Your task to perform on an android device: Search for the best rated vacuums on Target Image 0: 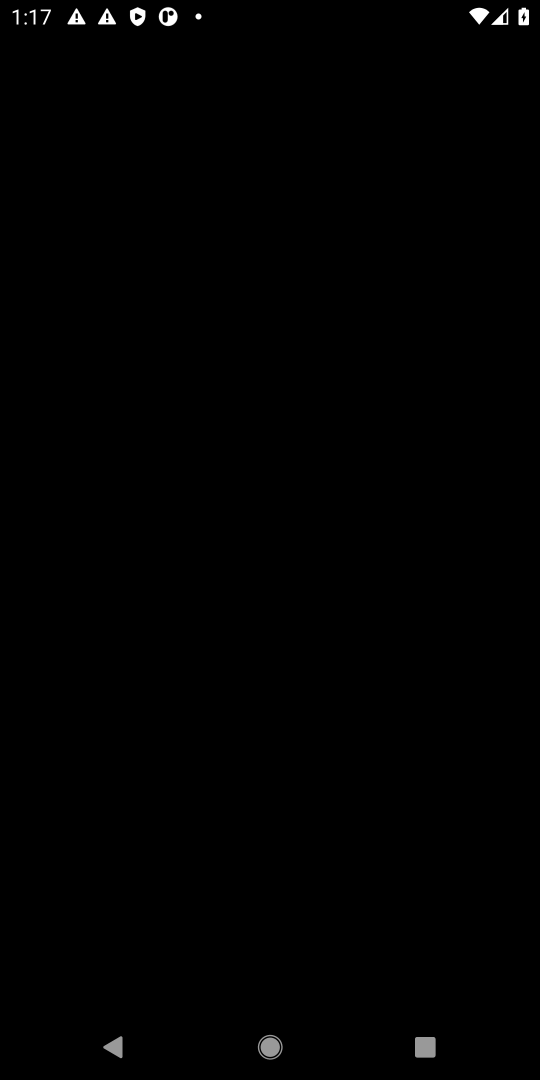
Step 0: click (281, 55)
Your task to perform on an android device: Search for the best rated vacuums on Target Image 1: 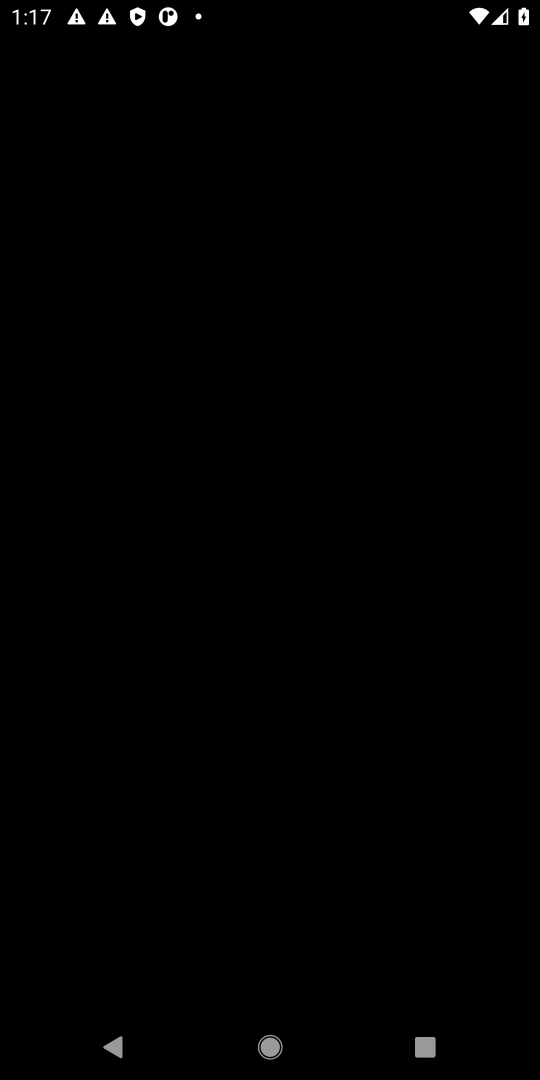
Step 1: press home button
Your task to perform on an android device: Search for the best rated vacuums on Target Image 2: 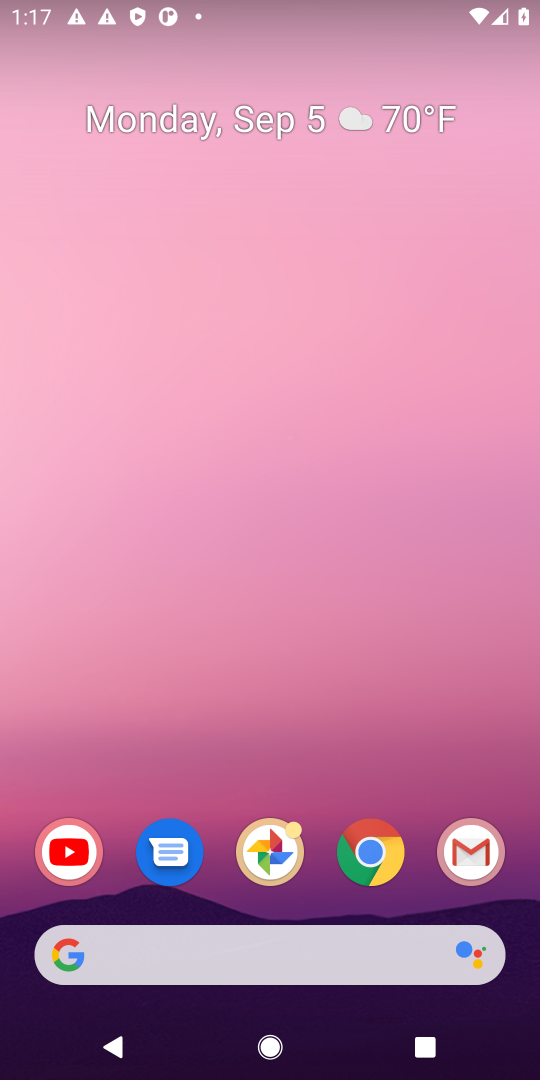
Step 2: click (374, 851)
Your task to perform on an android device: Search for the best rated vacuums on Target Image 3: 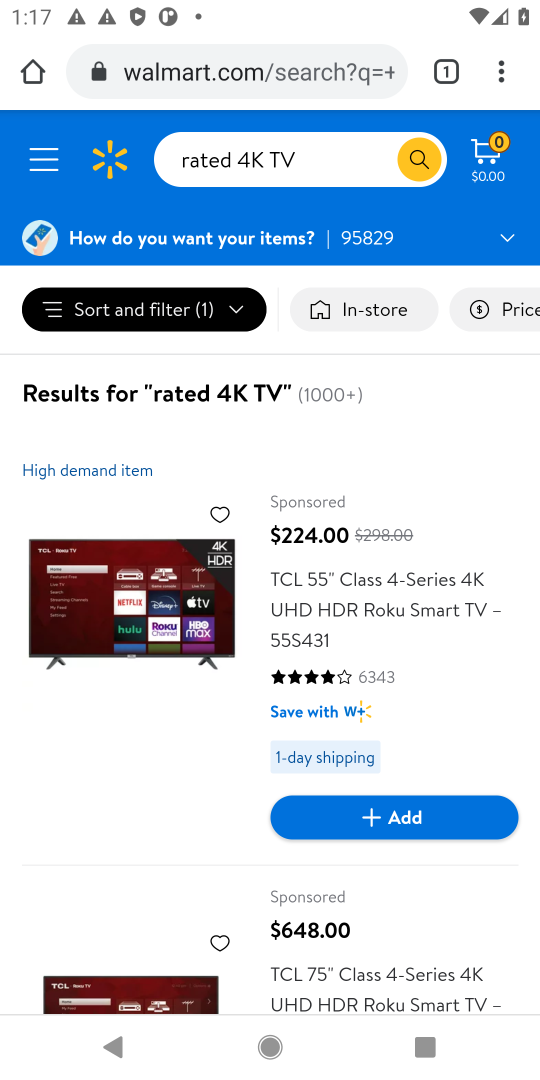
Step 3: click (285, 48)
Your task to perform on an android device: Search for the best rated vacuums on Target Image 4: 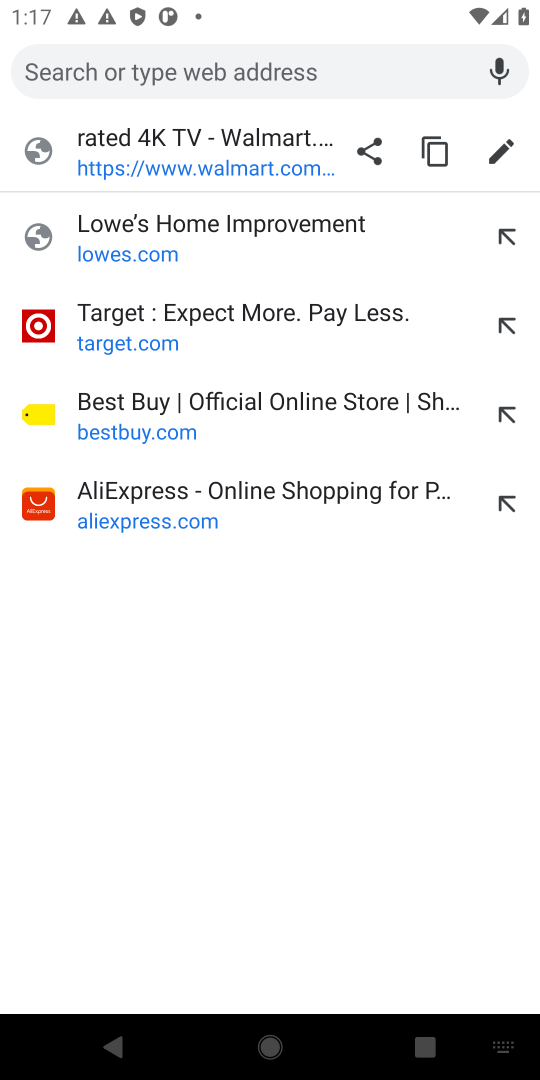
Step 4: click (111, 339)
Your task to perform on an android device: Search for the best rated vacuums on Target Image 5: 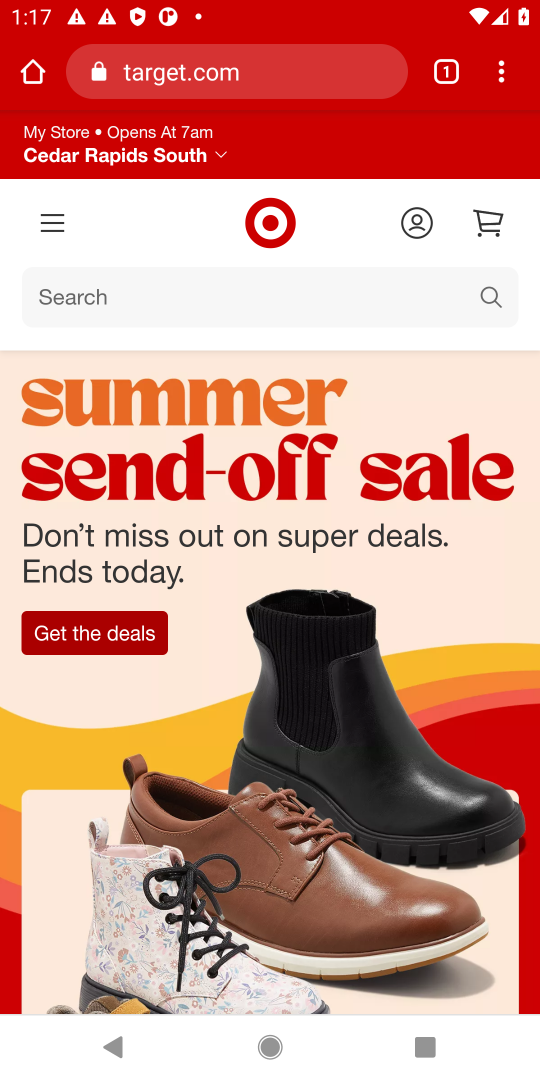
Step 5: click (107, 290)
Your task to perform on an android device: Search for the best rated vacuums on Target Image 6: 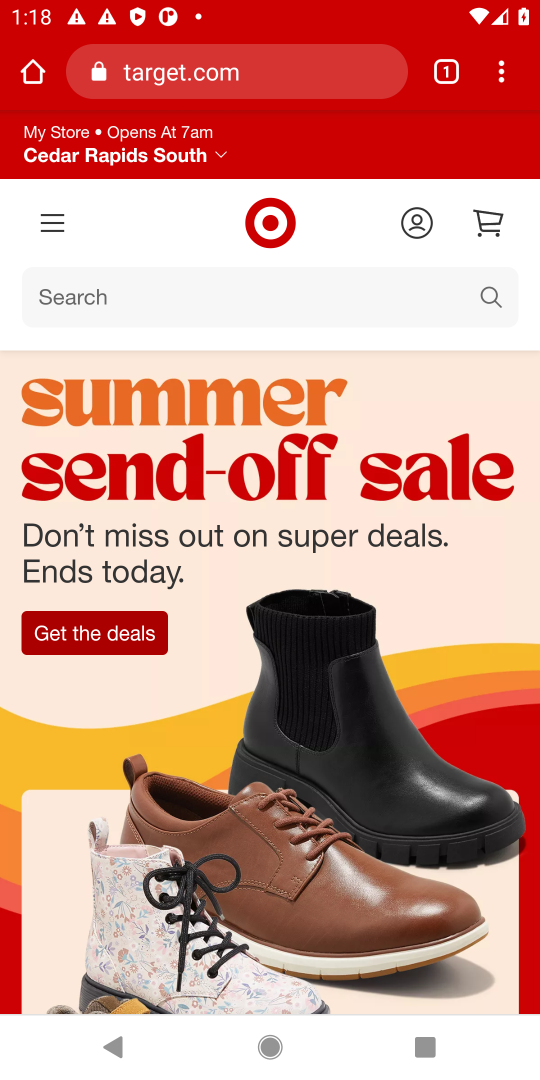
Step 6: click (154, 290)
Your task to perform on an android device: Search for the best rated vacuums on Target Image 7: 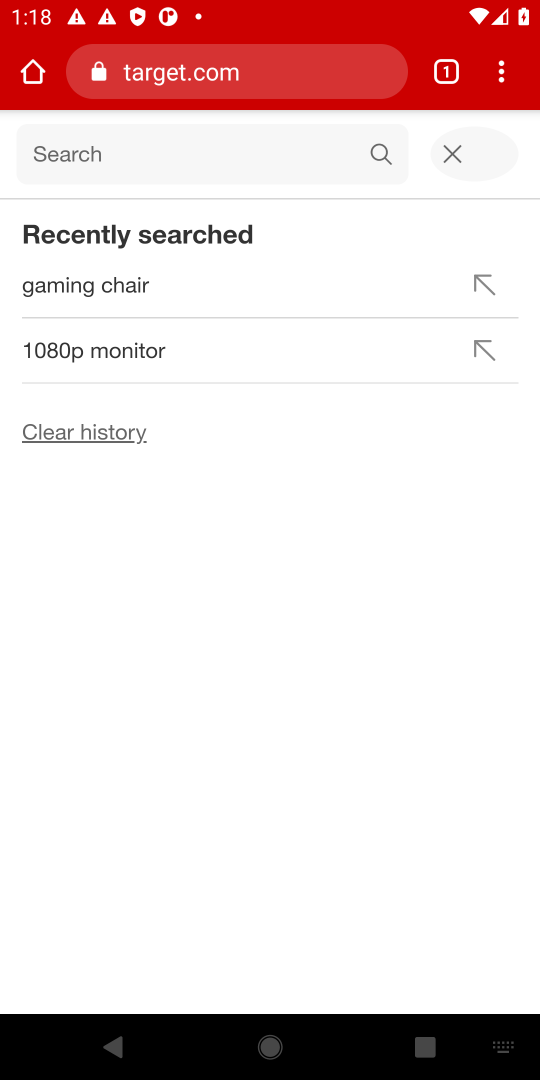
Step 7: type "vacuums"
Your task to perform on an android device: Search for the best rated vacuums on Target Image 8: 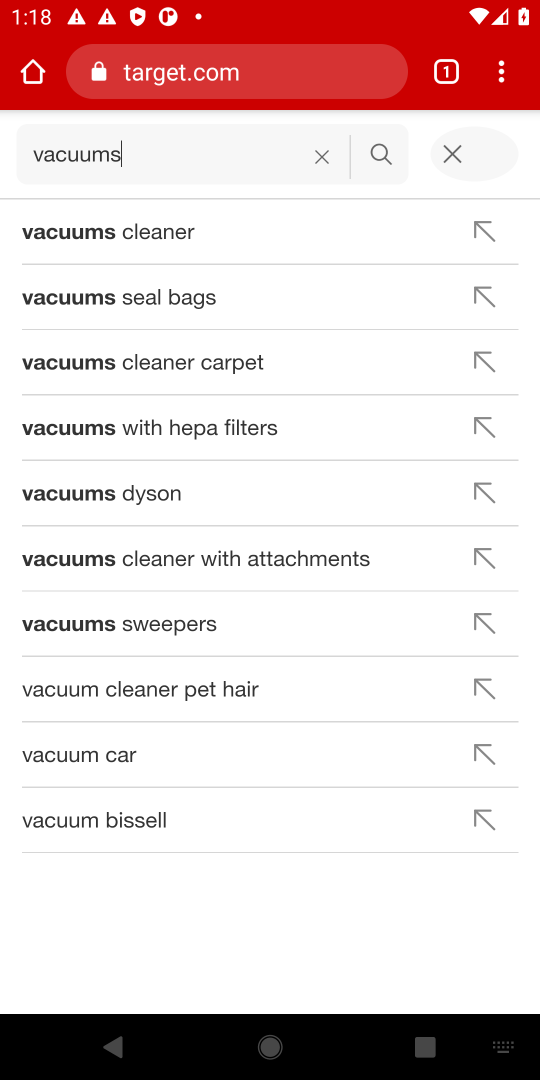
Step 8: click (384, 150)
Your task to perform on an android device: Search for the best rated vacuums on Target Image 9: 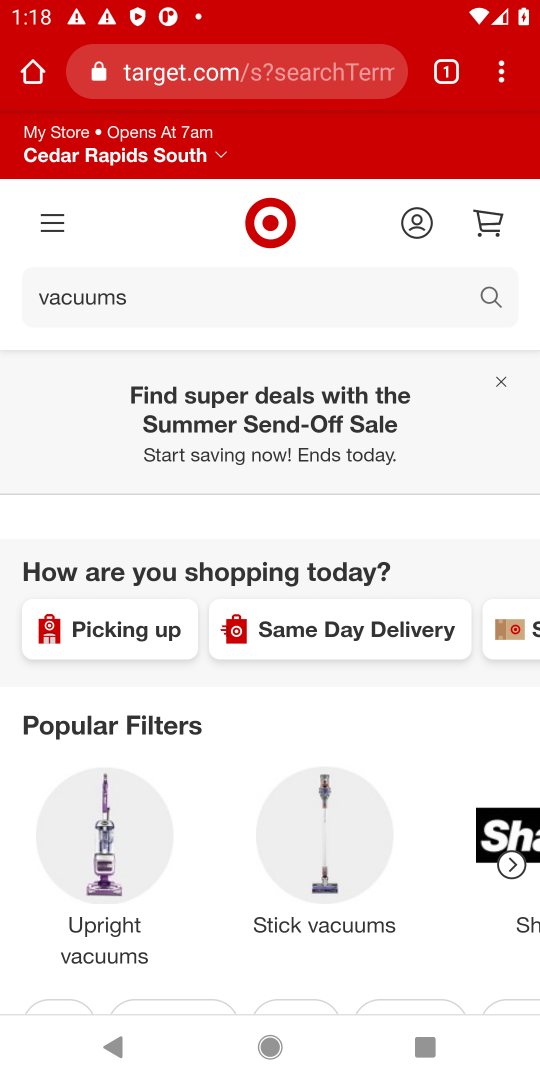
Step 9: drag from (232, 721) to (221, 429)
Your task to perform on an android device: Search for the best rated vacuums on Target Image 10: 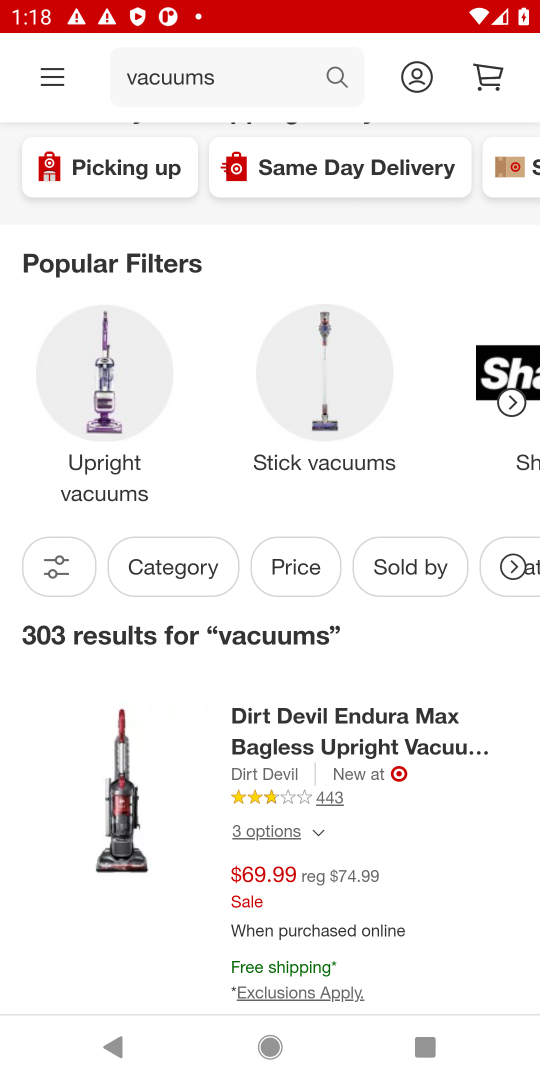
Step 10: click (56, 563)
Your task to perform on an android device: Search for the best rated vacuums on Target Image 11: 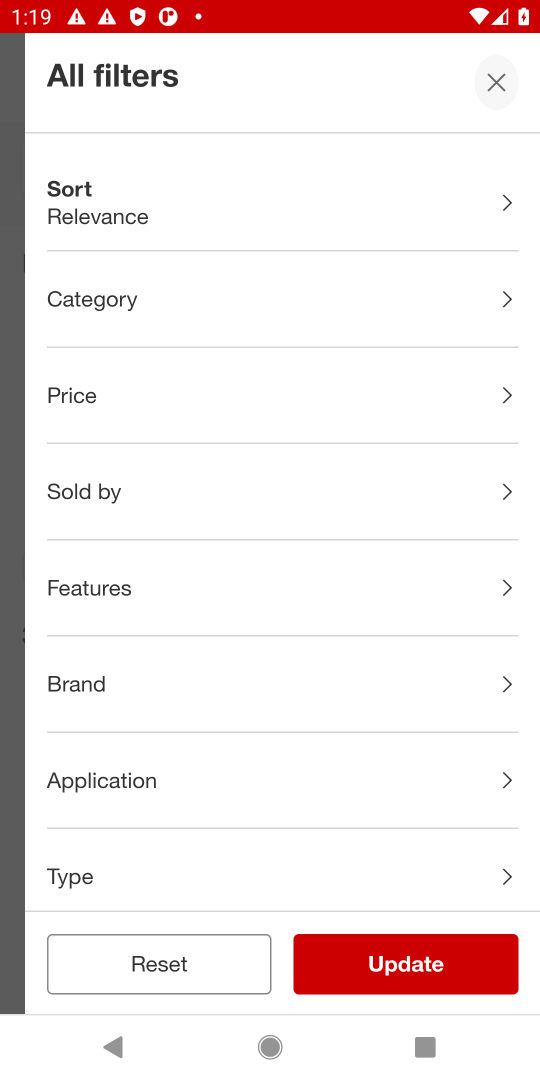
Step 11: drag from (341, 874) to (321, 419)
Your task to perform on an android device: Search for the best rated vacuums on Target Image 12: 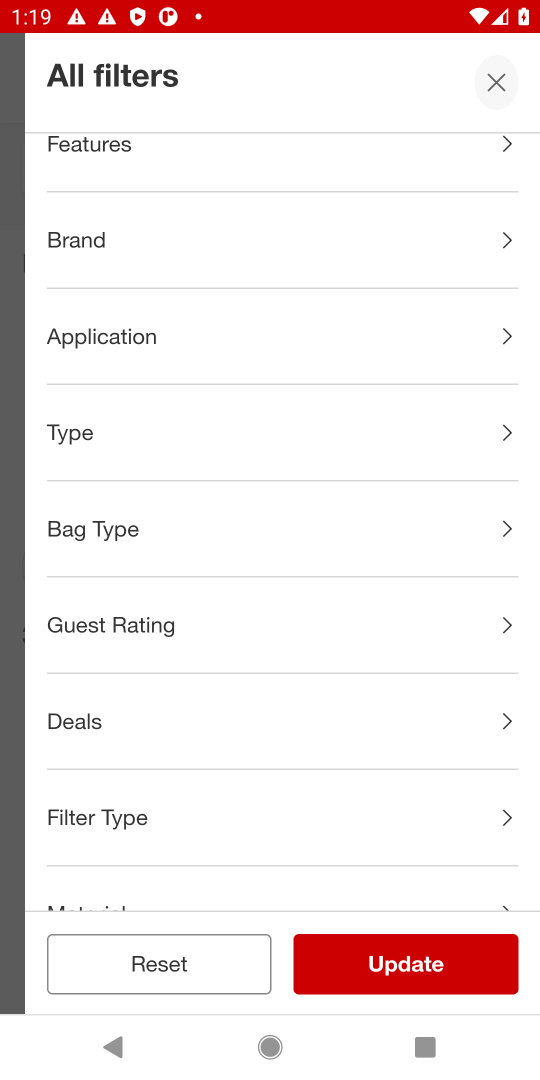
Step 12: drag from (339, 807) to (298, 296)
Your task to perform on an android device: Search for the best rated vacuums on Target Image 13: 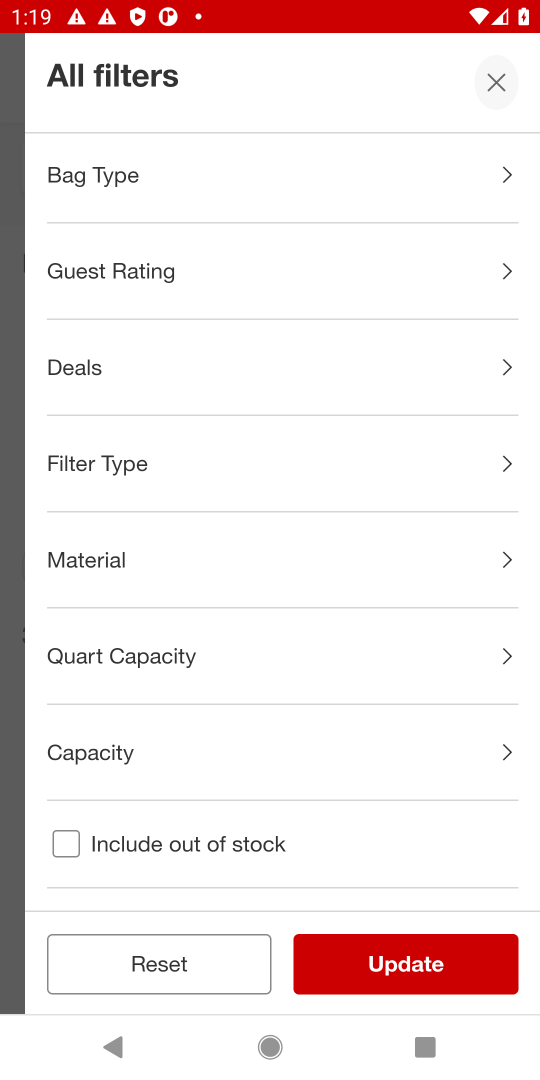
Step 13: drag from (298, 300) to (361, 795)
Your task to perform on an android device: Search for the best rated vacuums on Target Image 14: 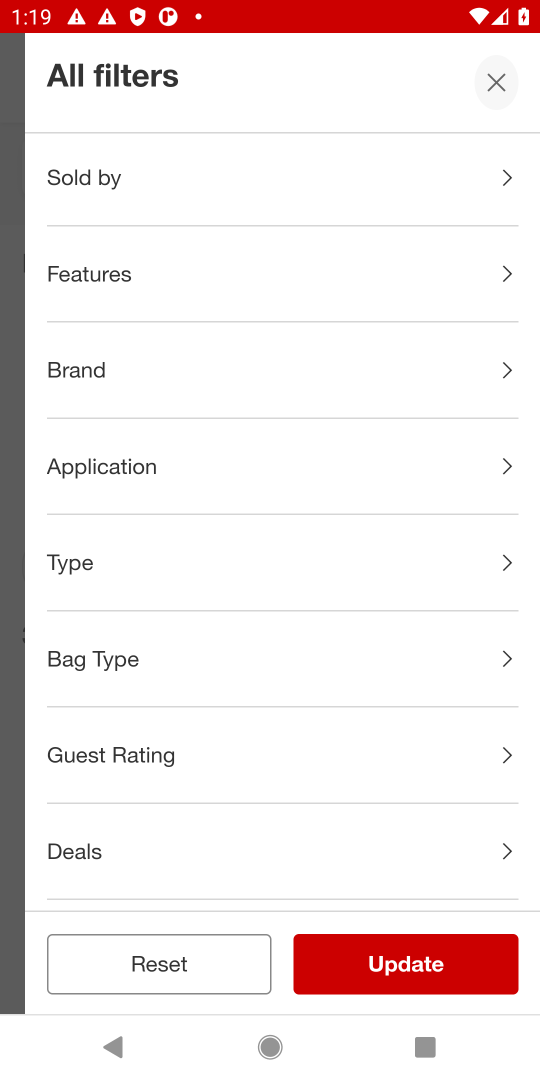
Step 14: drag from (357, 356) to (383, 816)
Your task to perform on an android device: Search for the best rated vacuums on Target Image 15: 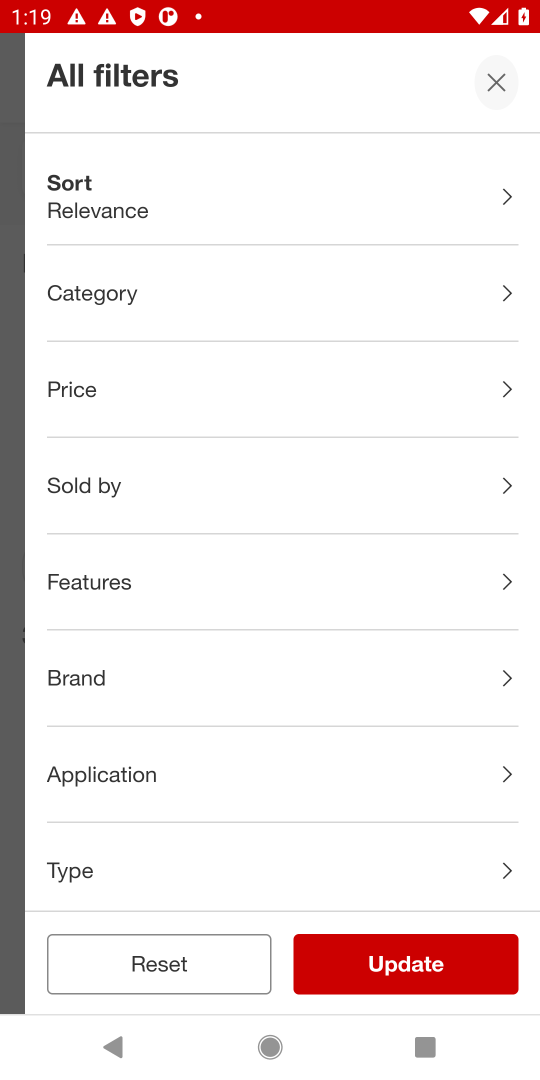
Step 15: click (494, 203)
Your task to perform on an android device: Search for the best rated vacuums on Target Image 16: 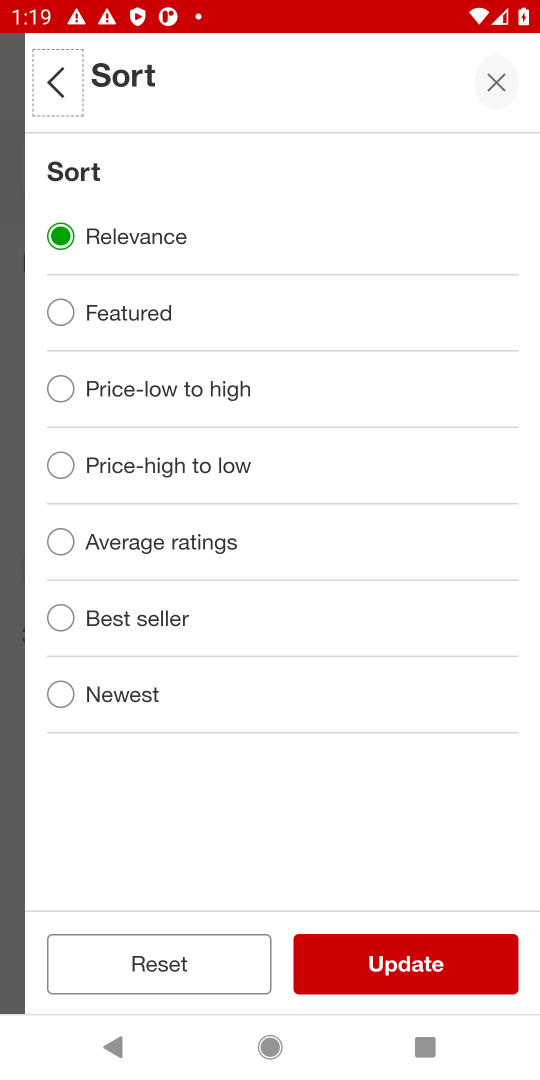
Step 16: click (64, 537)
Your task to perform on an android device: Search for the best rated vacuums on Target Image 17: 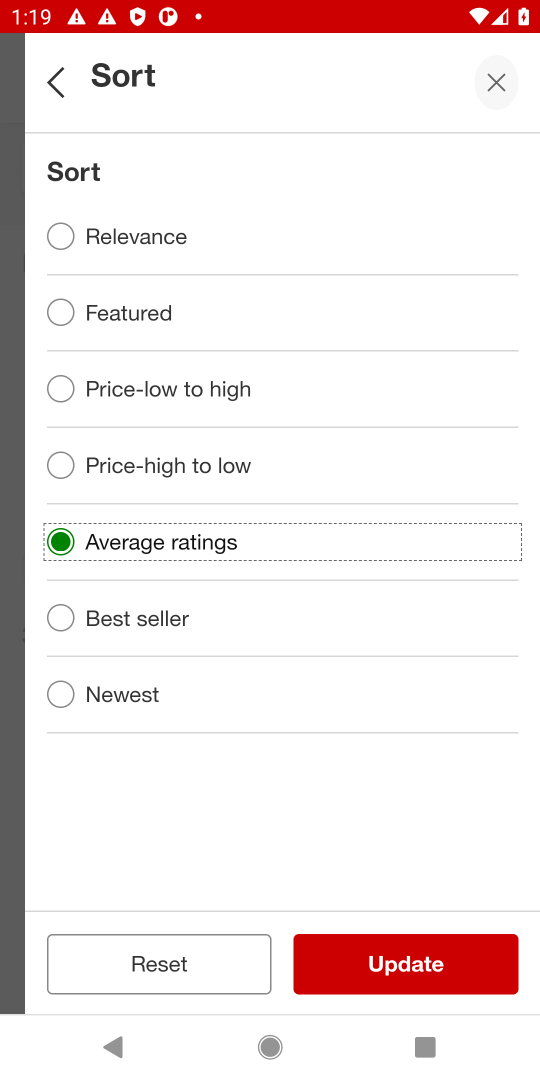
Step 17: click (390, 961)
Your task to perform on an android device: Search for the best rated vacuums on Target Image 18: 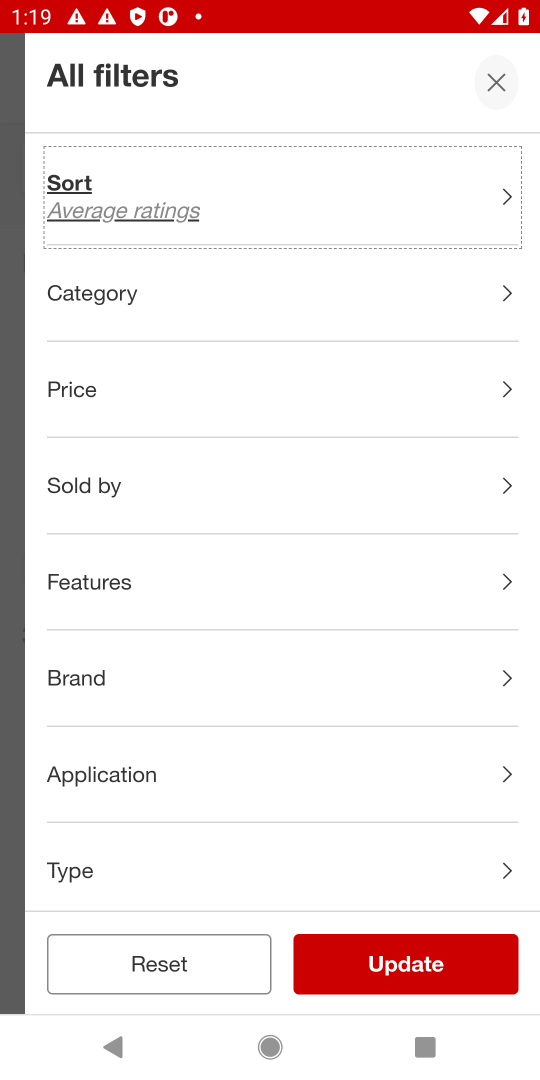
Step 18: click (402, 963)
Your task to perform on an android device: Search for the best rated vacuums on Target Image 19: 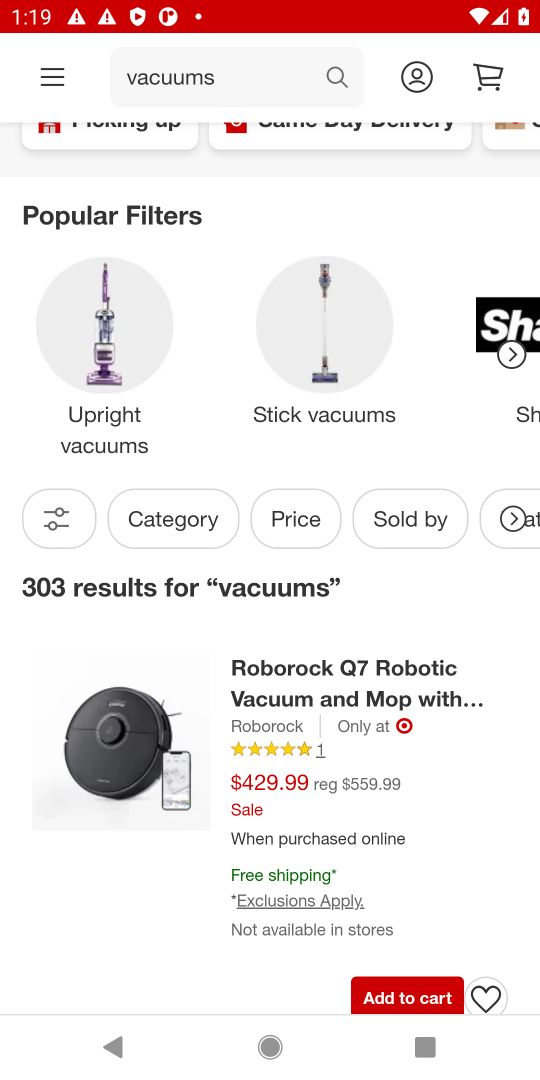
Step 19: task complete